Your task to perform on an android device: turn notification dots on Image 0: 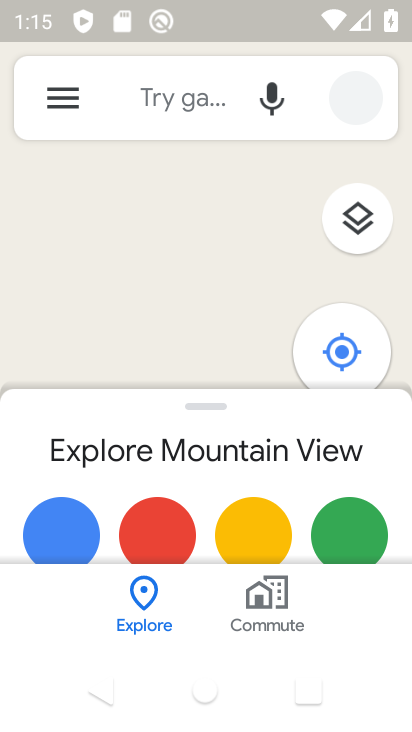
Step 0: press home button
Your task to perform on an android device: turn notification dots on Image 1: 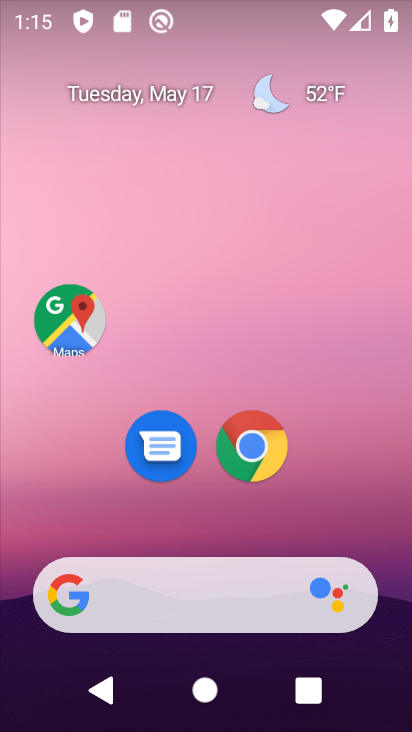
Step 1: drag from (344, 414) to (292, 33)
Your task to perform on an android device: turn notification dots on Image 2: 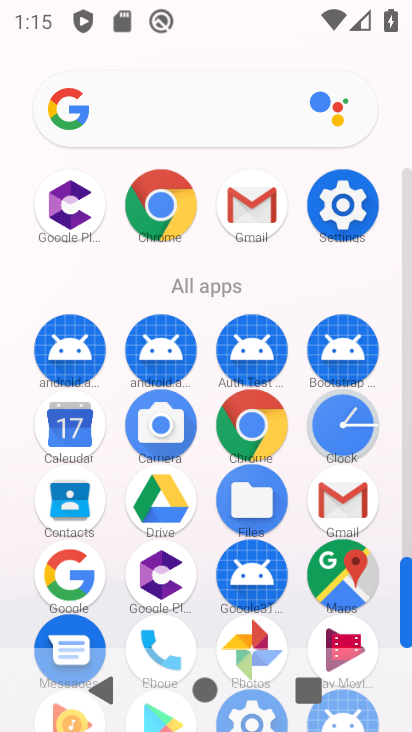
Step 2: click (342, 200)
Your task to perform on an android device: turn notification dots on Image 3: 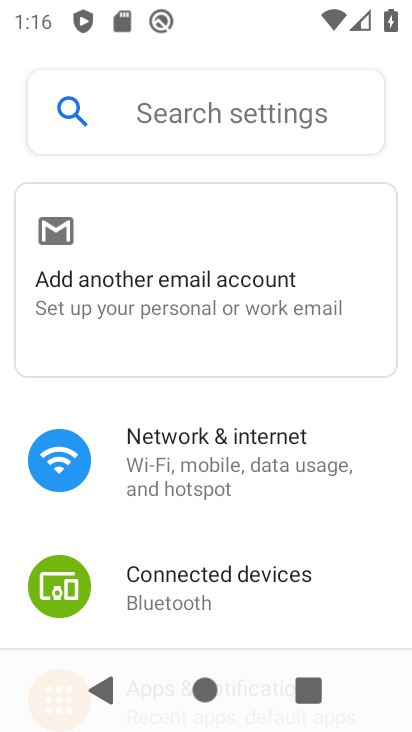
Step 3: drag from (254, 577) to (236, 365)
Your task to perform on an android device: turn notification dots on Image 4: 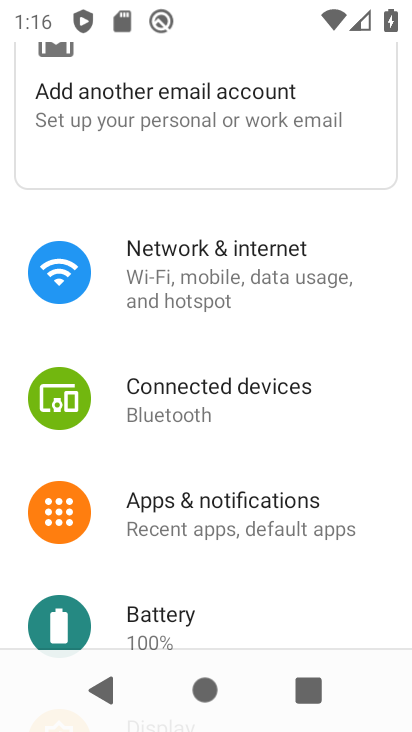
Step 4: click (257, 500)
Your task to perform on an android device: turn notification dots on Image 5: 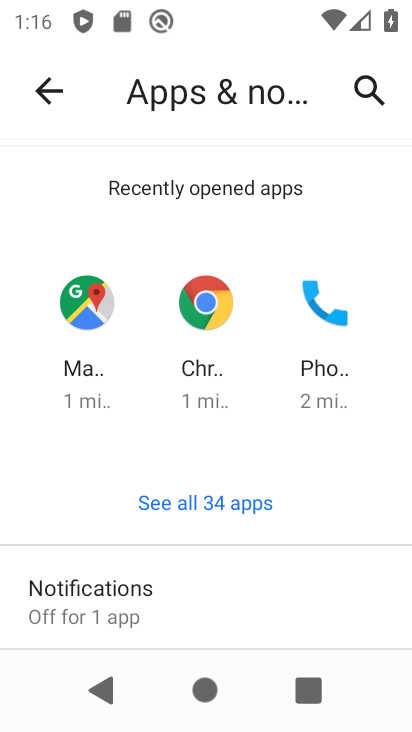
Step 5: click (195, 601)
Your task to perform on an android device: turn notification dots on Image 6: 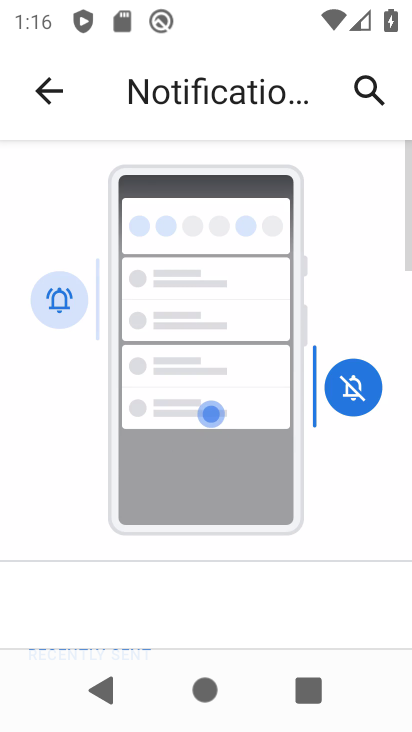
Step 6: drag from (191, 590) to (198, 264)
Your task to perform on an android device: turn notification dots on Image 7: 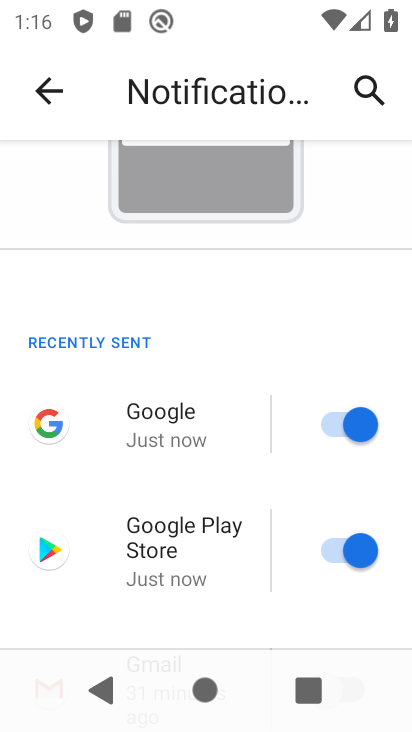
Step 7: drag from (264, 611) to (243, 301)
Your task to perform on an android device: turn notification dots on Image 8: 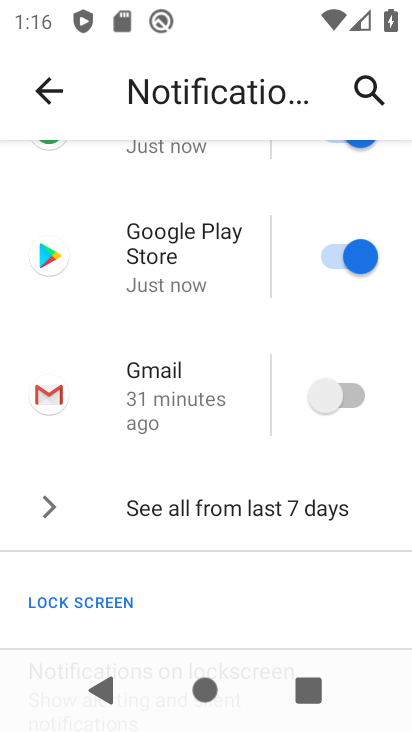
Step 8: drag from (277, 578) to (259, 290)
Your task to perform on an android device: turn notification dots on Image 9: 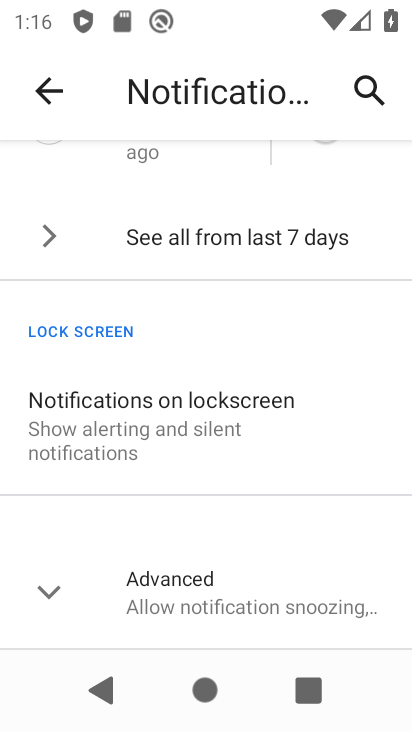
Step 9: click (94, 582)
Your task to perform on an android device: turn notification dots on Image 10: 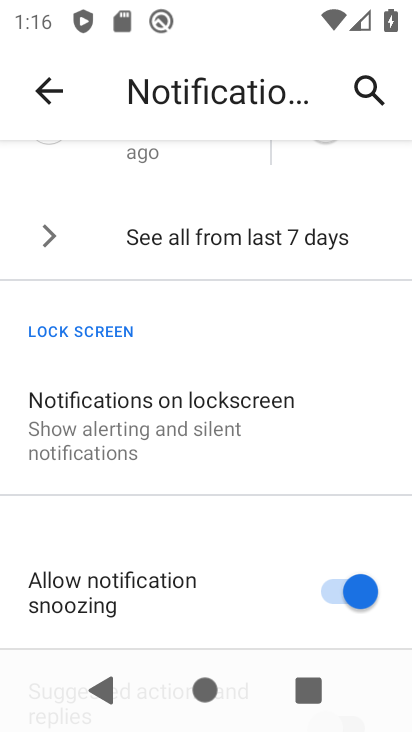
Step 10: drag from (265, 550) to (226, 275)
Your task to perform on an android device: turn notification dots on Image 11: 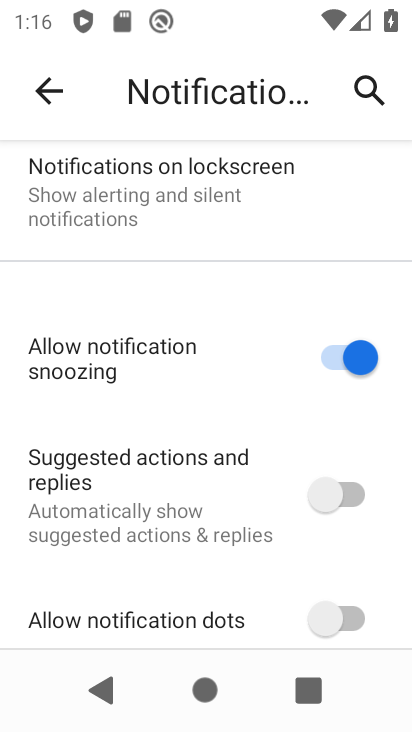
Step 11: click (317, 610)
Your task to perform on an android device: turn notification dots on Image 12: 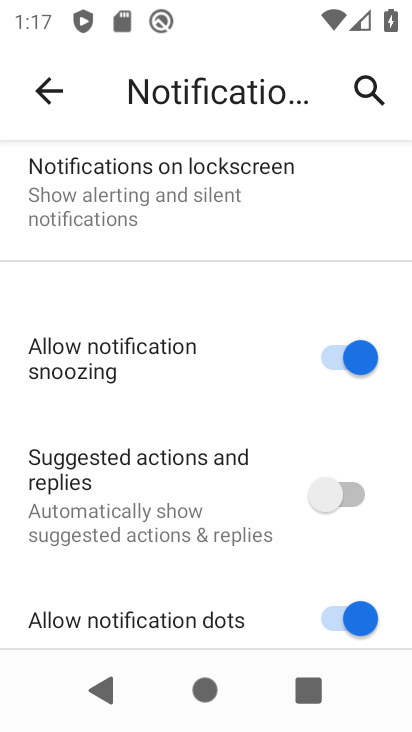
Step 12: task complete